Your task to perform on an android device: Open eBay Image 0: 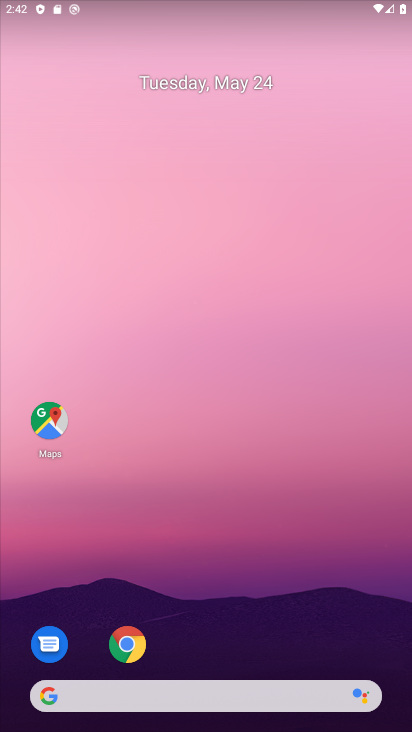
Step 0: drag from (283, 618) to (288, 225)
Your task to perform on an android device: Open eBay Image 1: 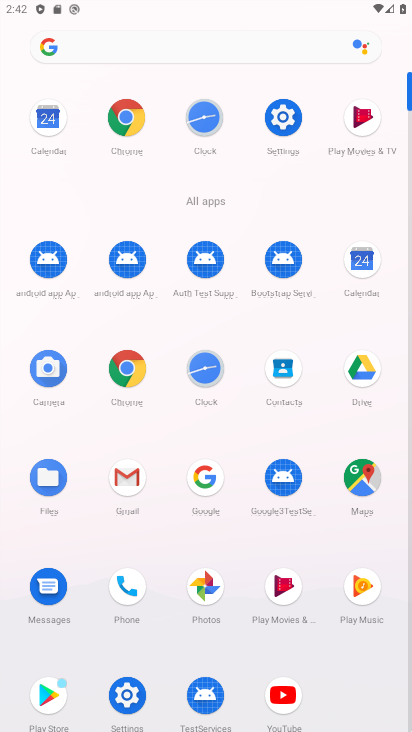
Step 1: click (126, 366)
Your task to perform on an android device: Open eBay Image 2: 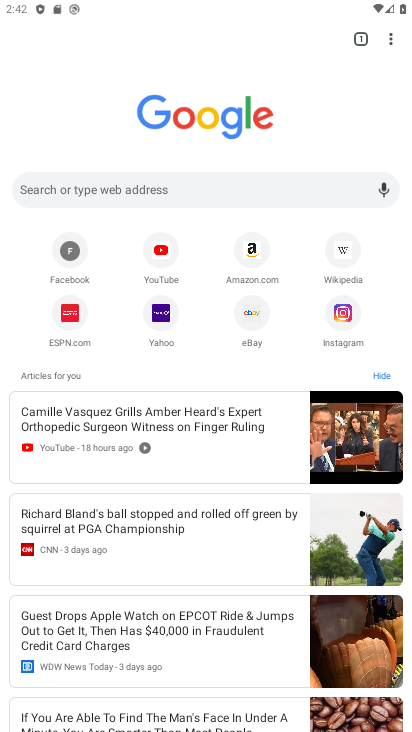
Step 2: click (195, 189)
Your task to perform on an android device: Open eBay Image 3: 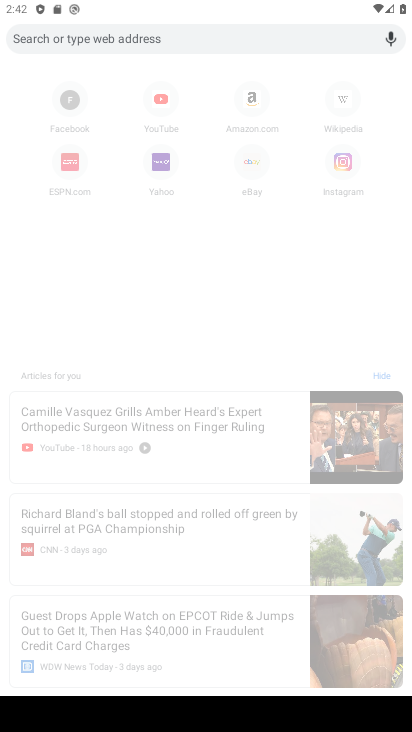
Step 3: type "ebay"
Your task to perform on an android device: Open eBay Image 4: 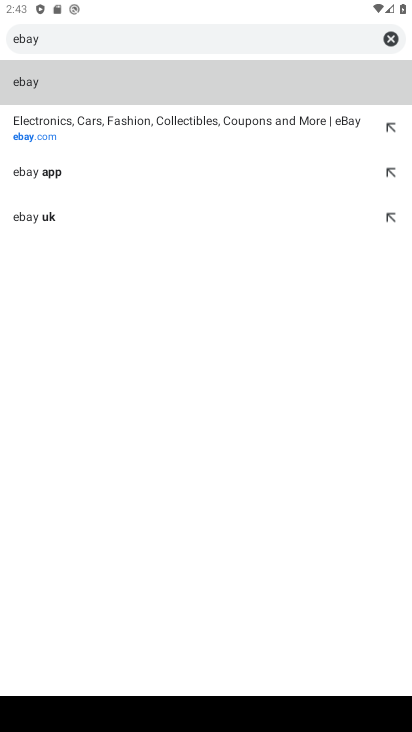
Step 4: click (66, 92)
Your task to perform on an android device: Open eBay Image 5: 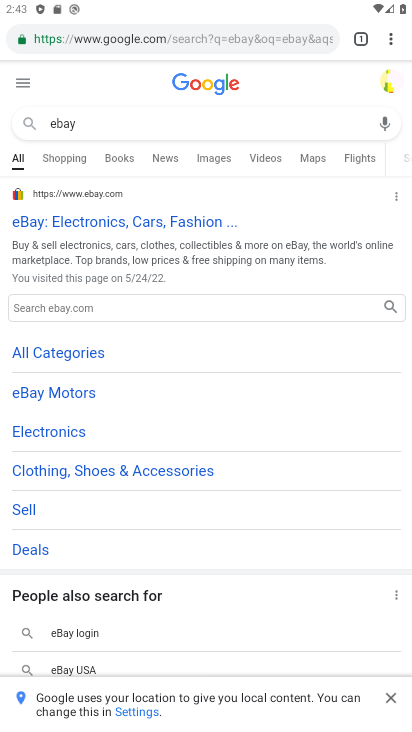
Step 5: click (48, 218)
Your task to perform on an android device: Open eBay Image 6: 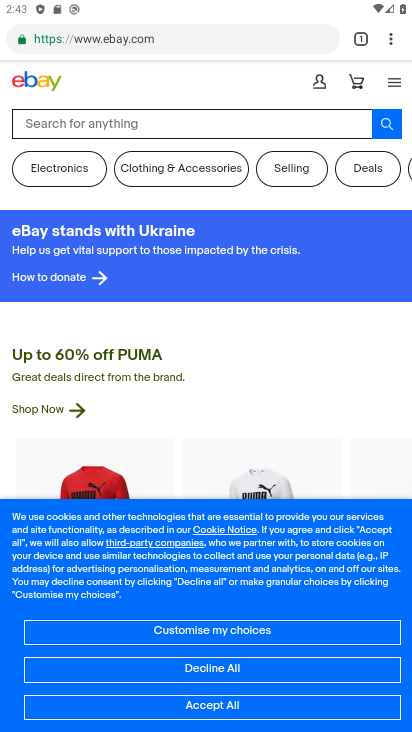
Step 6: task complete